Your task to perform on an android device: Look up the best rated pressure washer on Home Depot. Image 0: 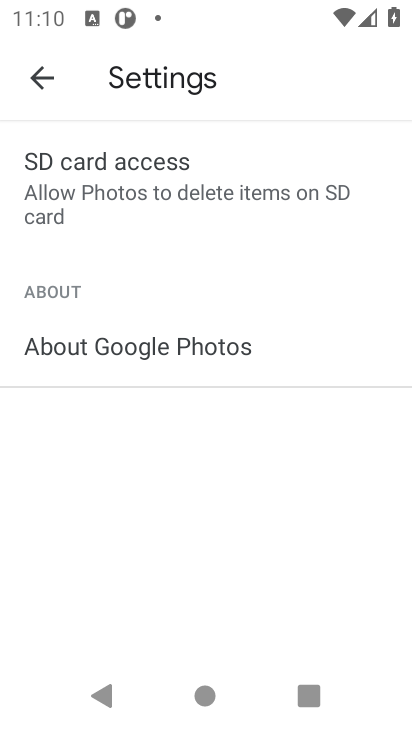
Step 0: press home button
Your task to perform on an android device: Look up the best rated pressure washer on Home Depot. Image 1: 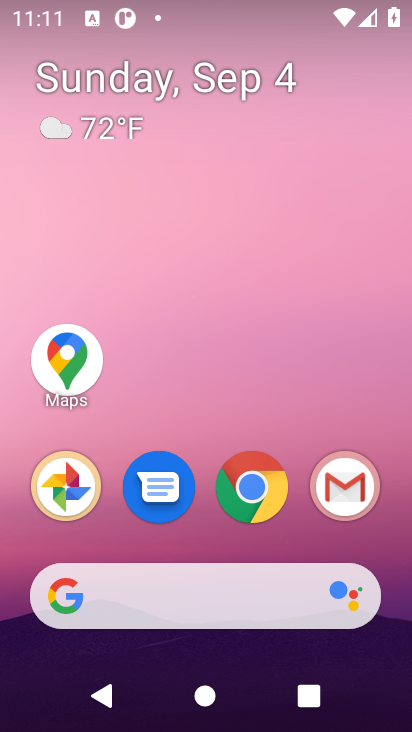
Step 1: click (147, 575)
Your task to perform on an android device: Look up the best rated pressure washer on Home Depot. Image 2: 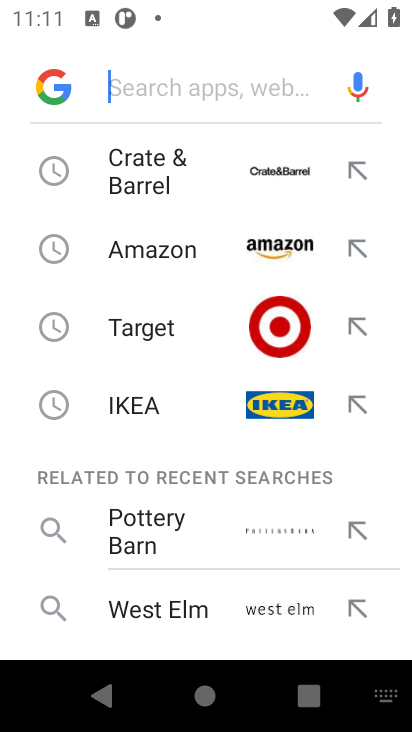
Step 2: type "home depot"
Your task to perform on an android device: Look up the best rated pressure washer on Home Depot. Image 3: 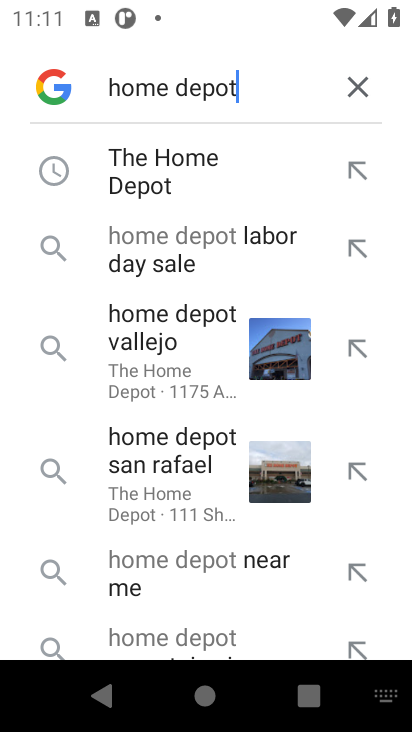
Step 3: click (194, 135)
Your task to perform on an android device: Look up the best rated pressure washer on Home Depot. Image 4: 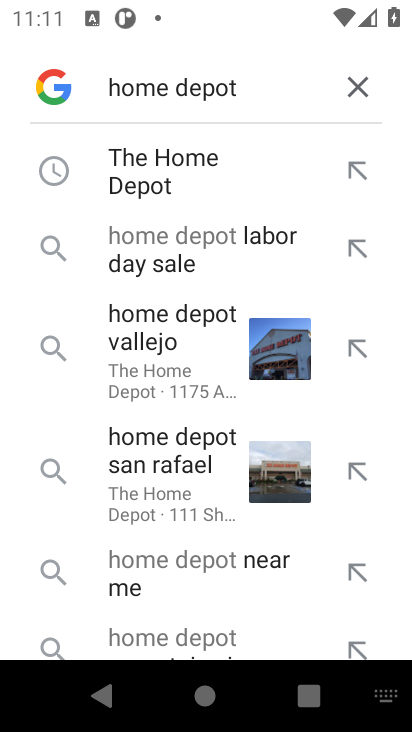
Step 4: click (140, 192)
Your task to perform on an android device: Look up the best rated pressure washer on Home Depot. Image 5: 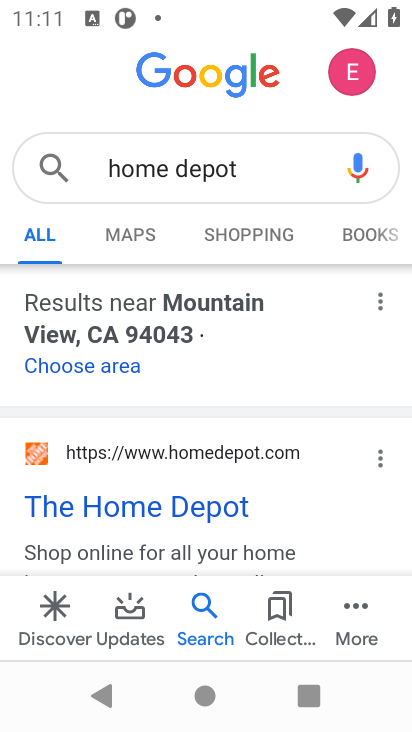
Step 5: click (128, 515)
Your task to perform on an android device: Look up the best rated pressure washer on Home Depot. Image 6: 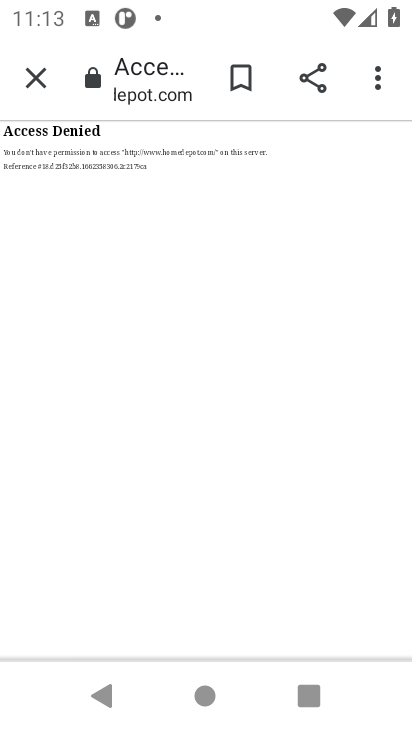
Step 6: task complete